Your task to perform on an android device: Open notification settings Image 0: 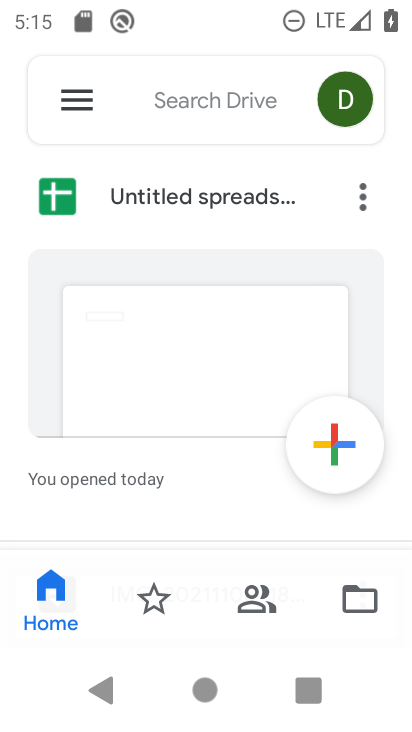
Step 0: press home button
Your task to perform on an android device: Open notification settings Image 1: 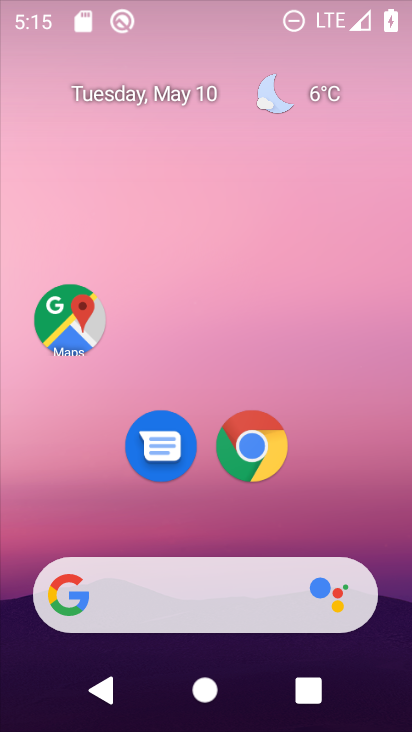
Step 1: drag from (236, 520) to (214, 80)
Your task to perform on an android device: Open notification settings Image 2: 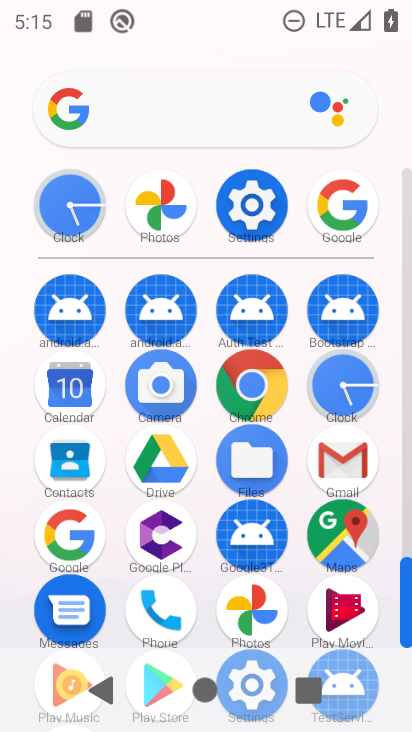
Step 2: click (255, 212)
Your task to perform on an android device: Open notification settings Image 3: 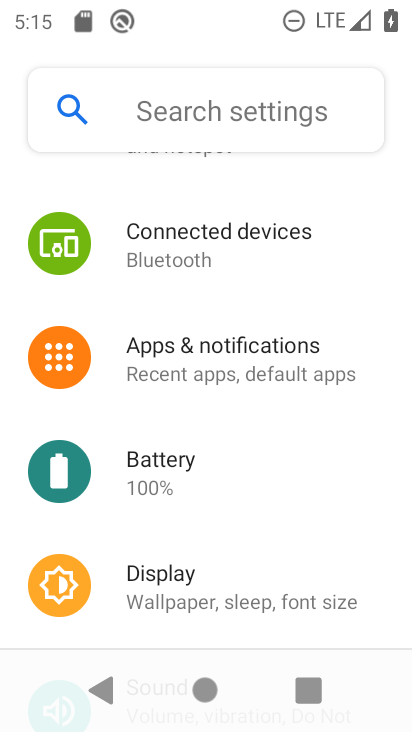
Step 3: click (230, 373)
Your task to perform on an android device: Open notification settings Image 4: 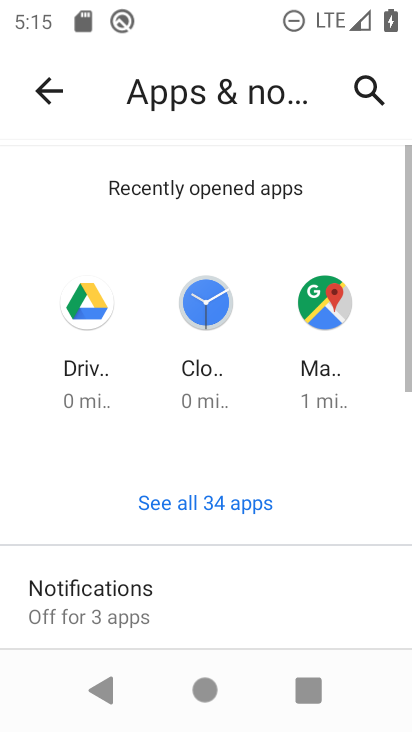
Step 4: task complete